Your task to perform on an android device: change timer sound Image 0: 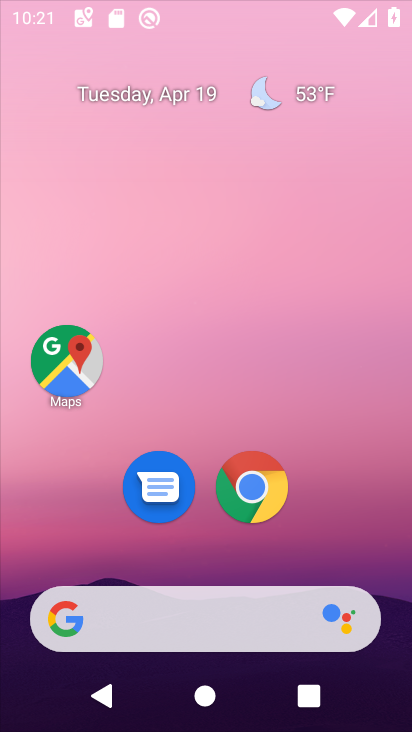
Step 0: drag from (399, 678) to (292, 17)
Your task to perform on an android device: change timer sound Image 1: 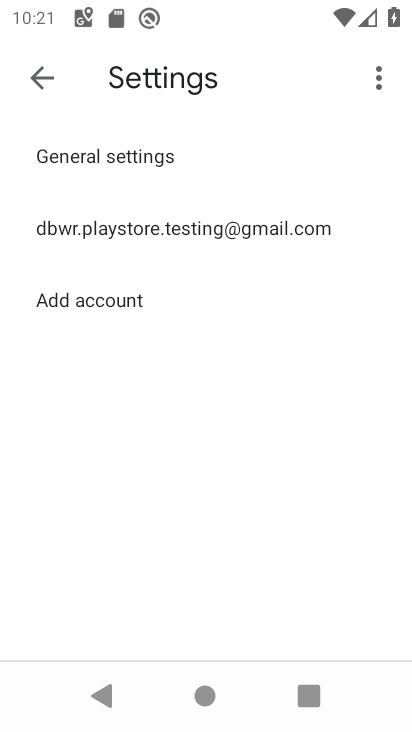
Step 1: press back button
Your task to perform on an android device: change timer sound Image 2: 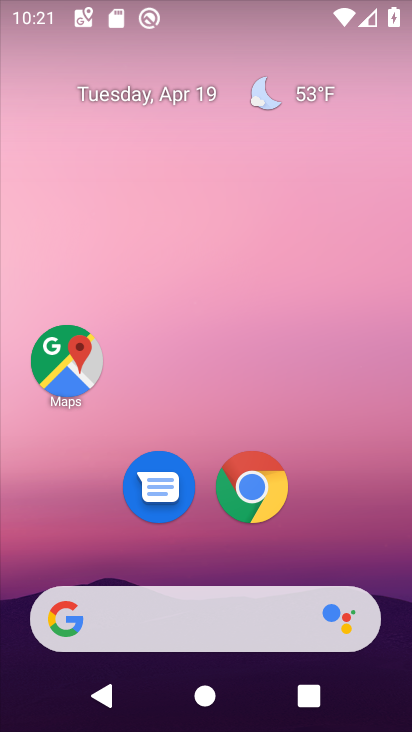
Step 2: drag from (382, 580) to (223, 2)
Your task to perform on an android device: change timer sound Image 3: 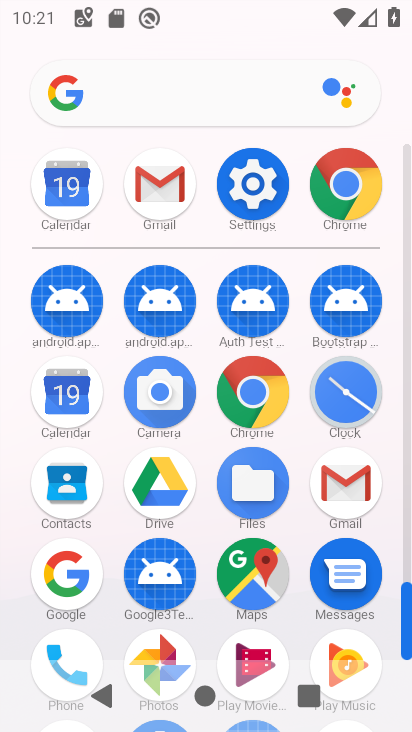
Step 3: drag from (6, 487) to (1, 224)
Your task to perform on an android device: change timer sound Image 4: 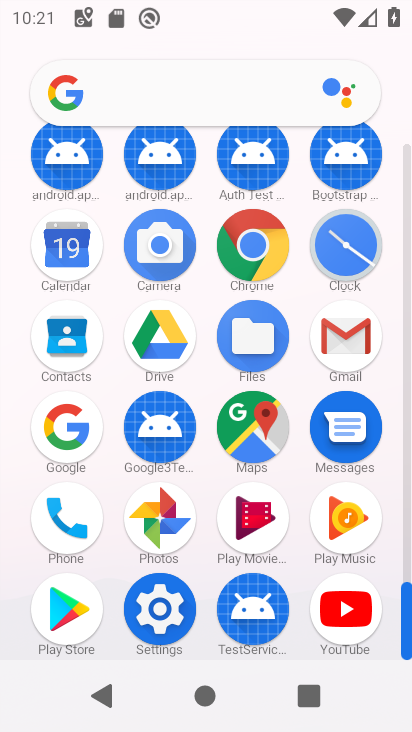
Step 4: drag from (9, 167) to (2, 397)
Your task to perform on an android device: change timer sound Image 5: 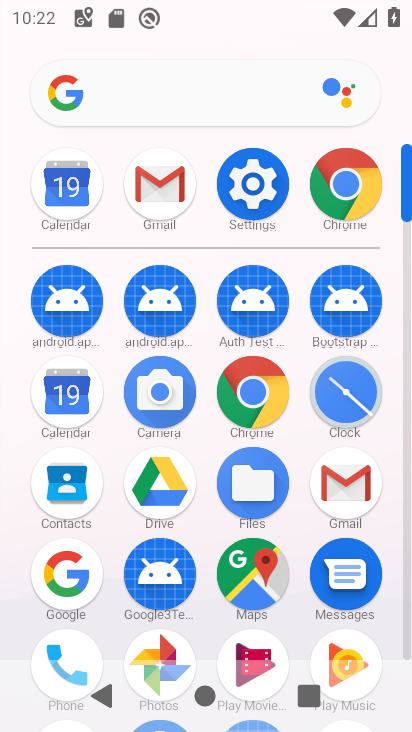
Step 5: click (344, 383)
Your task to perform on an android device: change timer sound Image 6: 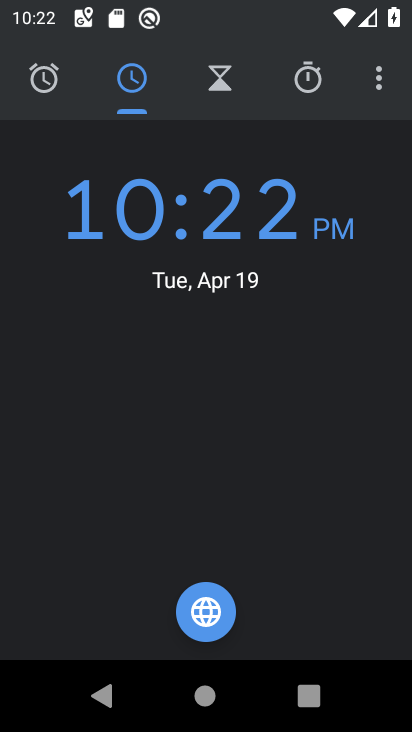
Step 6: click (377, 86)
Your task to perform on an android device: change timer sound Image 7: 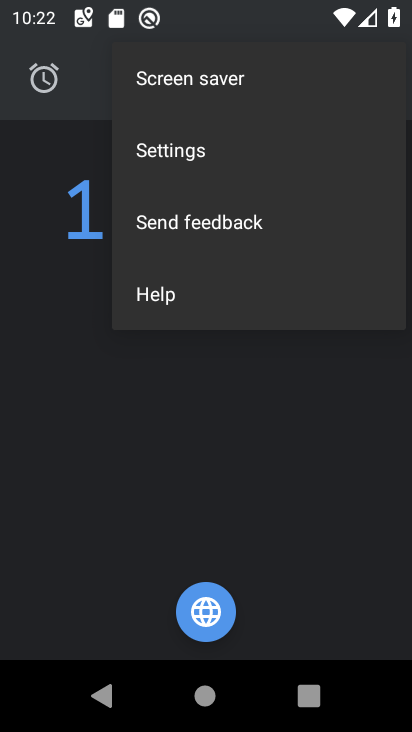
Step 7: click (224, 156)
Your task to perform on an android device: change timer sound Image 8: 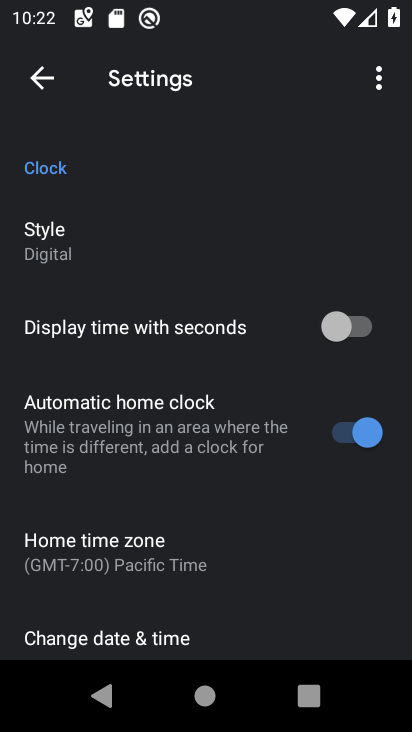
Step 8: drag from (203, 426) to (179, 188)
Your task to perform on an android device: change timer sound Image 9: 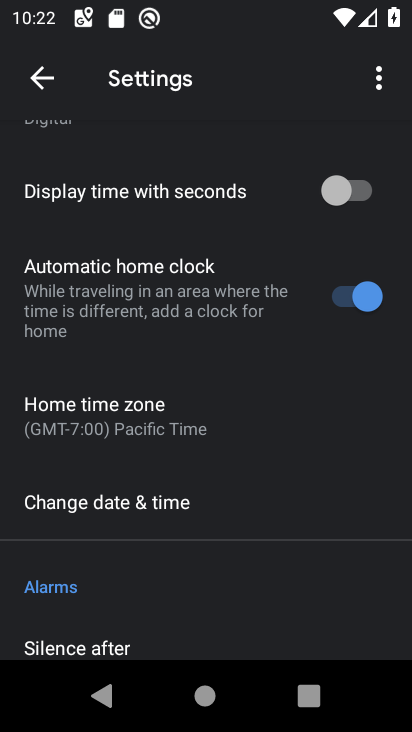
Step 9: drag from (208, 517) to (183, 162)
Your task to perform on an android device: change timer sound Image 10: 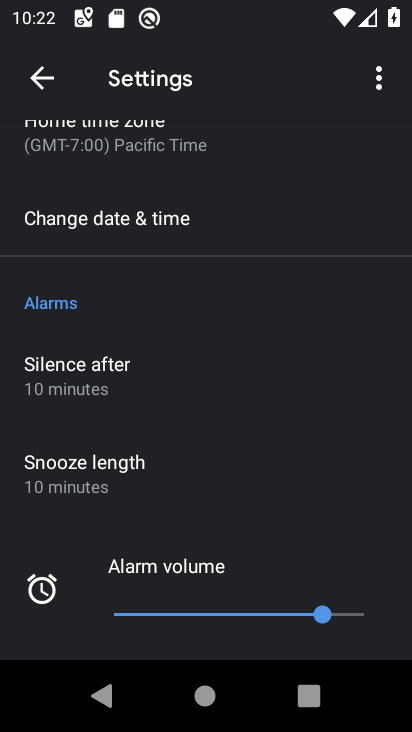
Step 10: drag from (188, 498) to (194, 139)
Your task to perform on an android device: change timer sound Image 11: 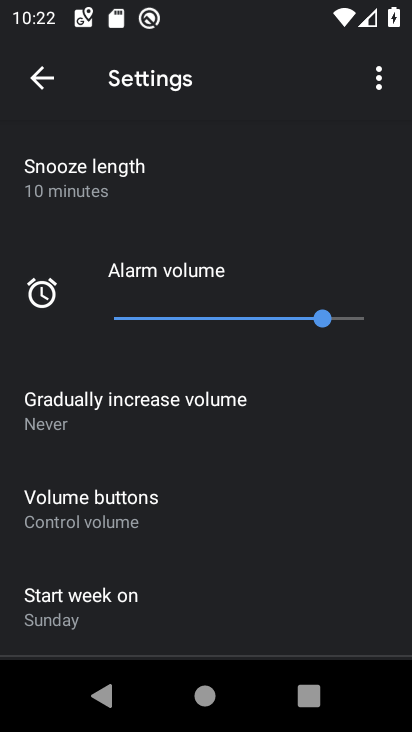
Step 11: drag from (211, 491) to (204, 113)
Your task to perform on an android device: change timer sound Image 12: 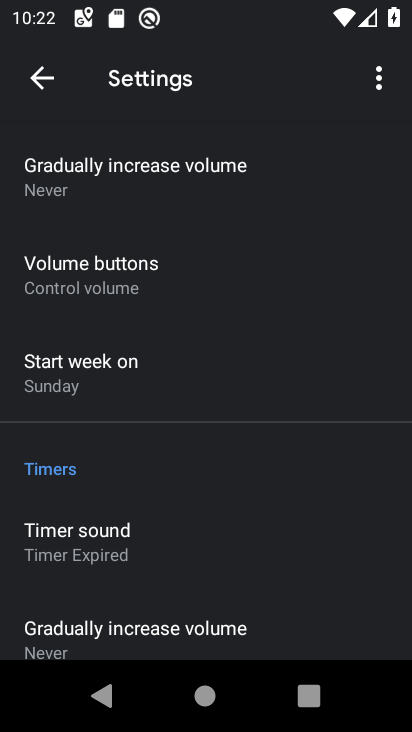
Step 12: drag from (199, 515) to (197, 179)
Your task to perform on an android device: change timer sound Image 13: 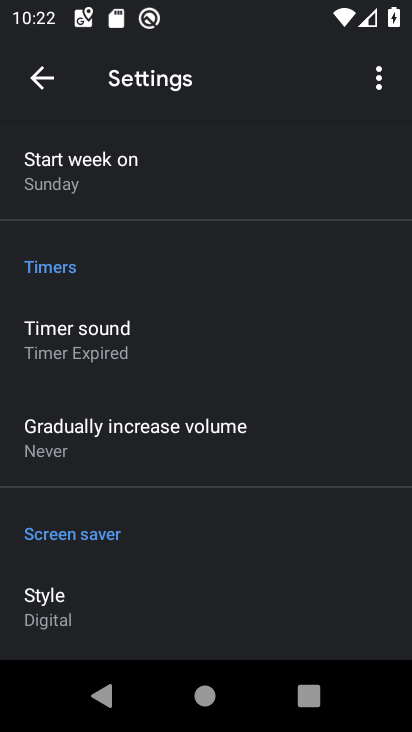
Step 13: click (154, 338)
Your task to perform on an android device: change timer sound Image 14: 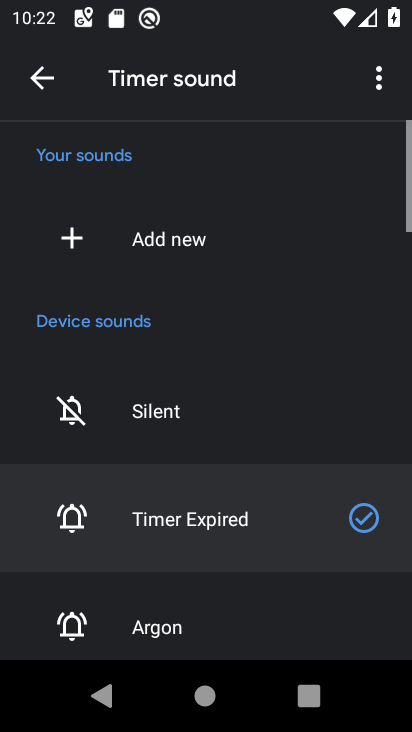
Step 14: drag from (204, 607) to (209, 323)
Your task to perform on an android device: change timer sound Image 15: 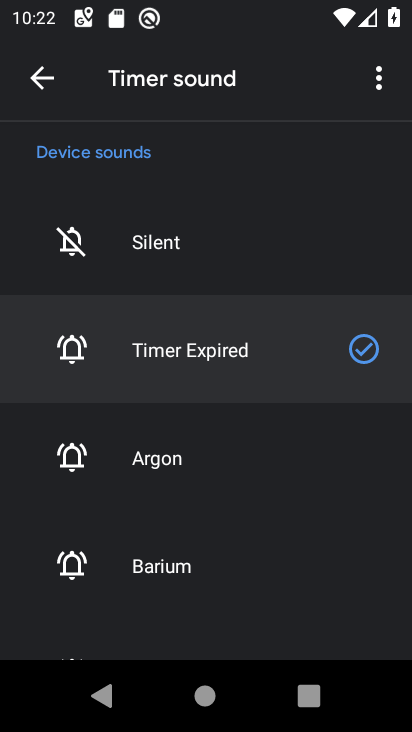
Step 15: click (177, 566)
Your task to perform on an android device: change timer sound Image 16: 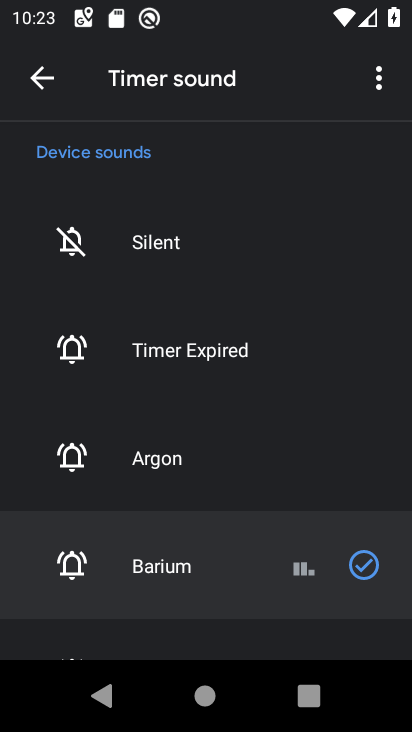
Step 16: task complete